Your task to perform on an android device: Open Android settings Image 0: 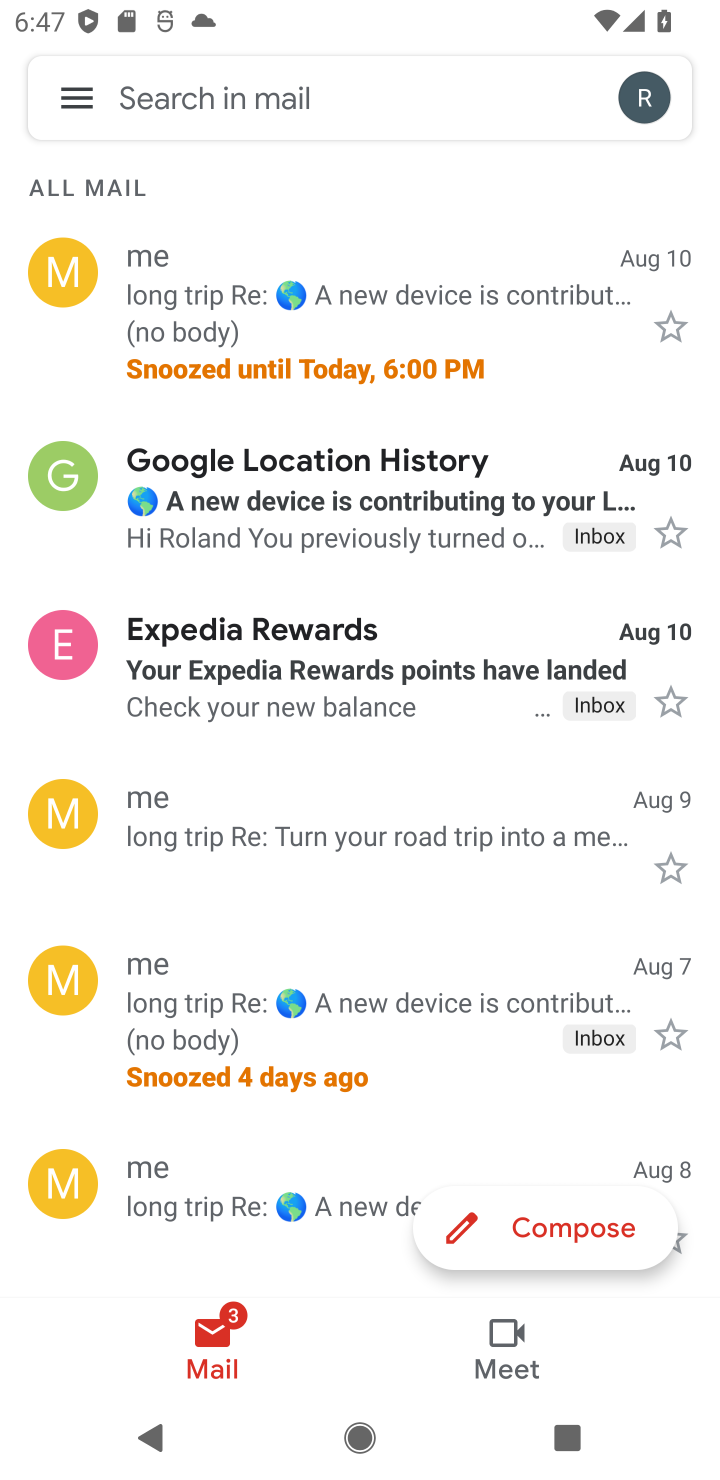
Step 0: press home button
Your task to perform on an android device: Open Android settings Image 1: 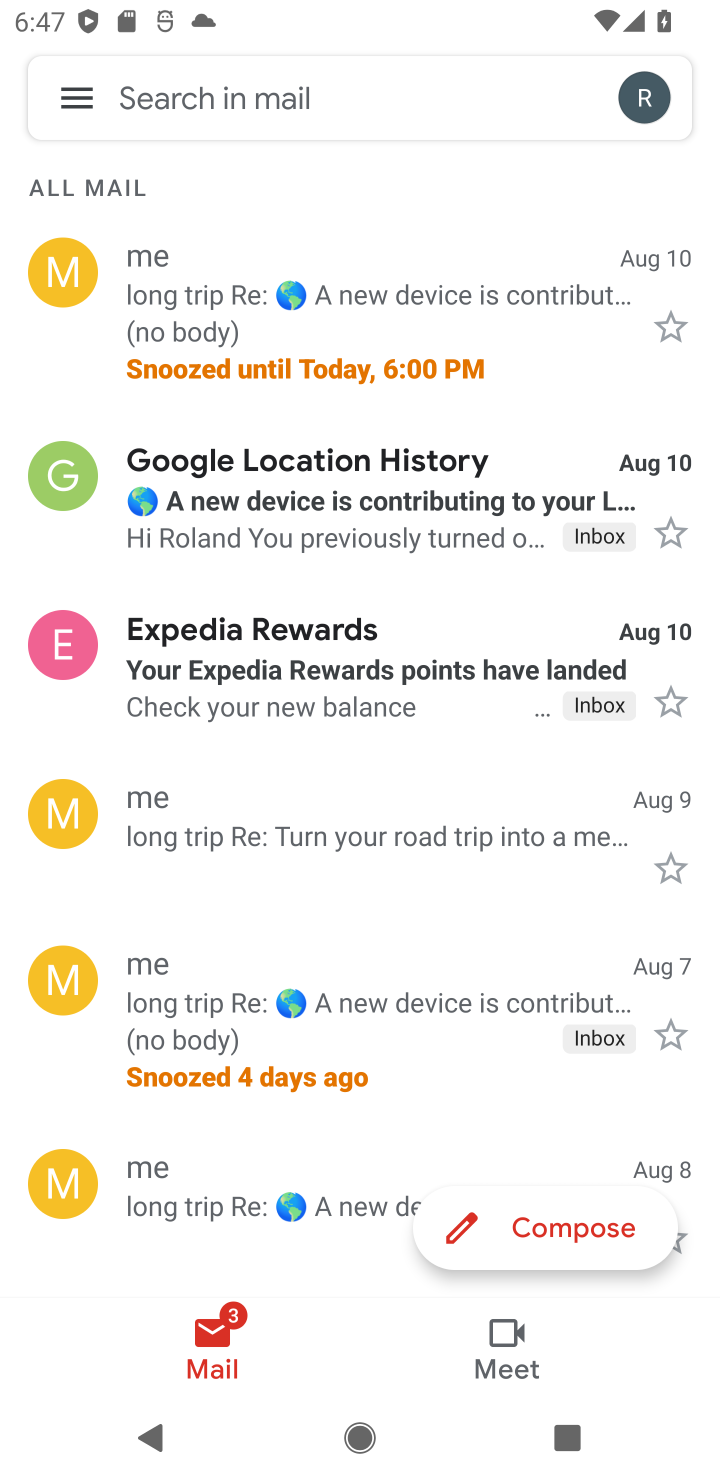
Step 1: press home button
Your task to perform on an android device: Open Android settings Image 2: 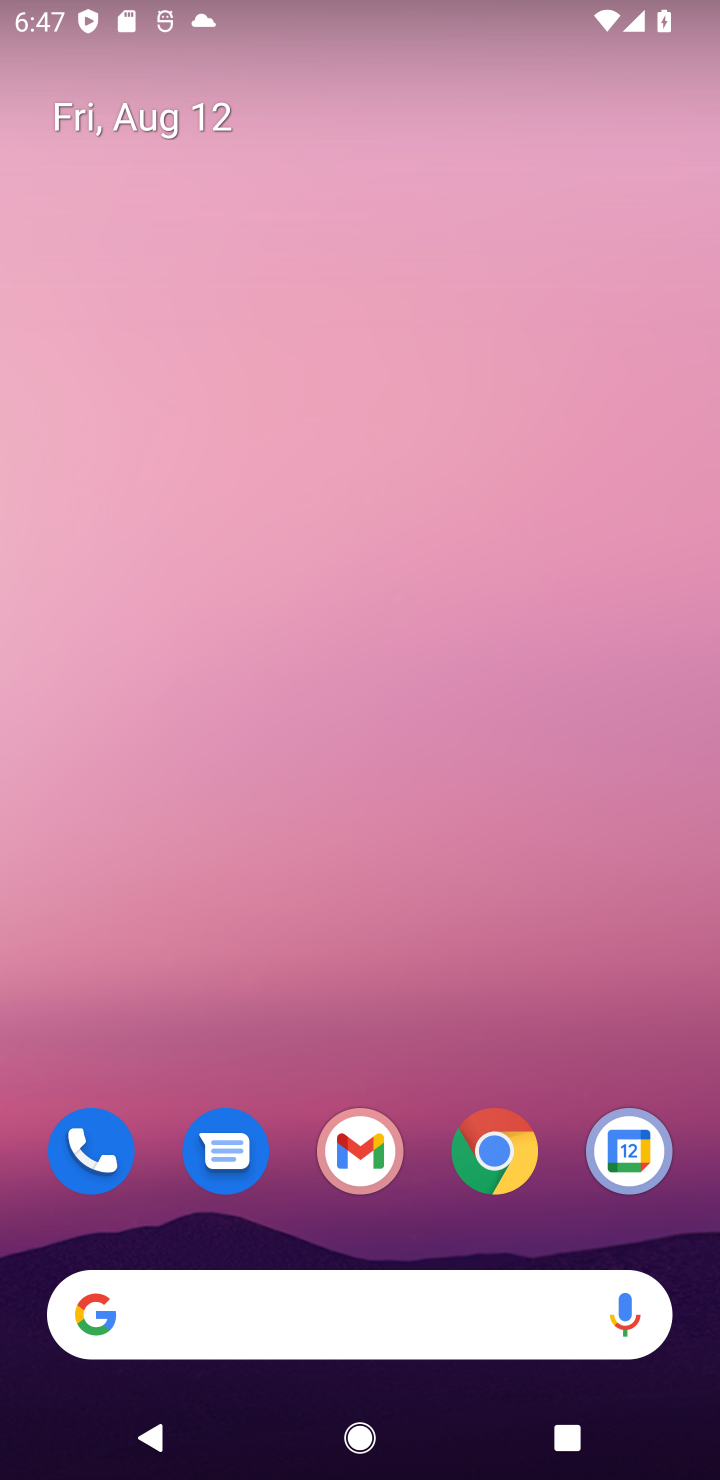
Step 2: drag from (471, 933) to (521, 0)
Your task to perform on an android device: Open Android settings Image 3: 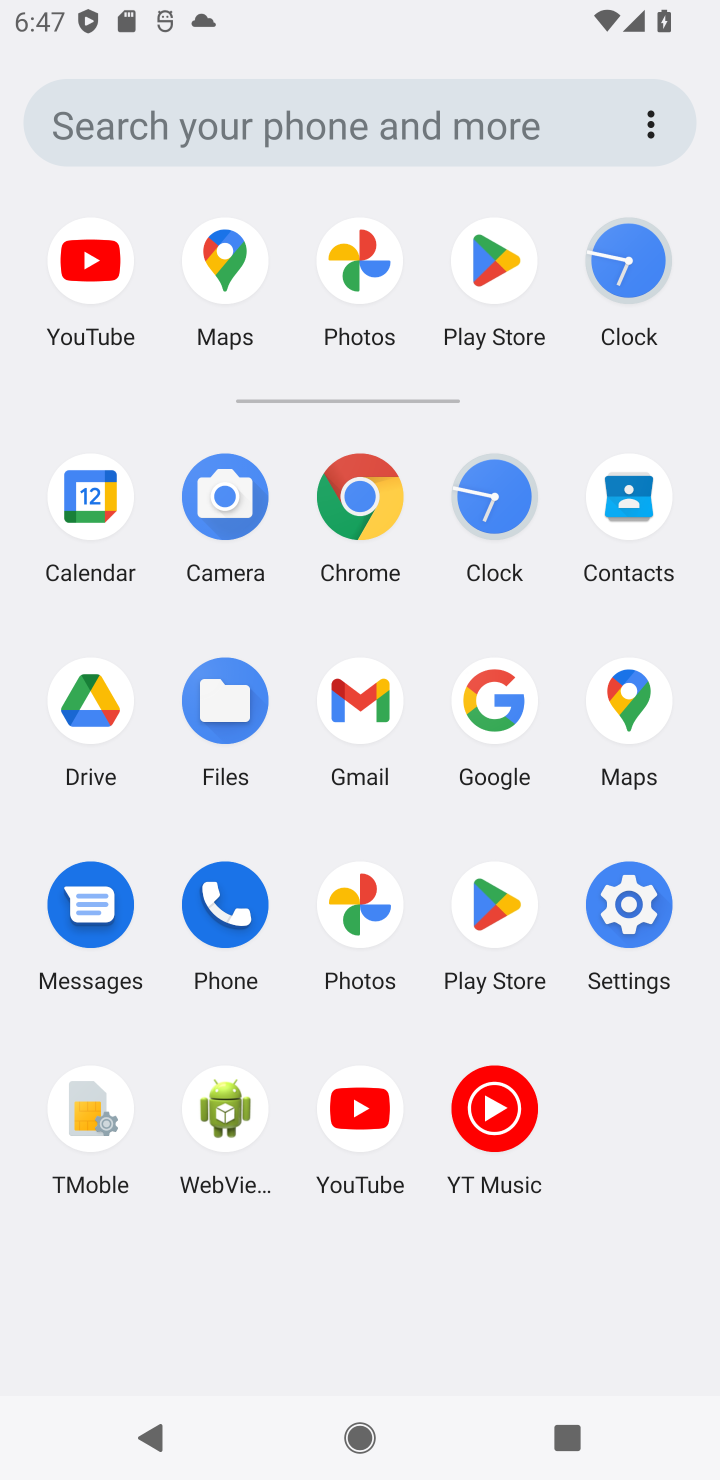
Step 3: click (644, 905)
Your task to perform on an android device: Open Android settings Image 4: 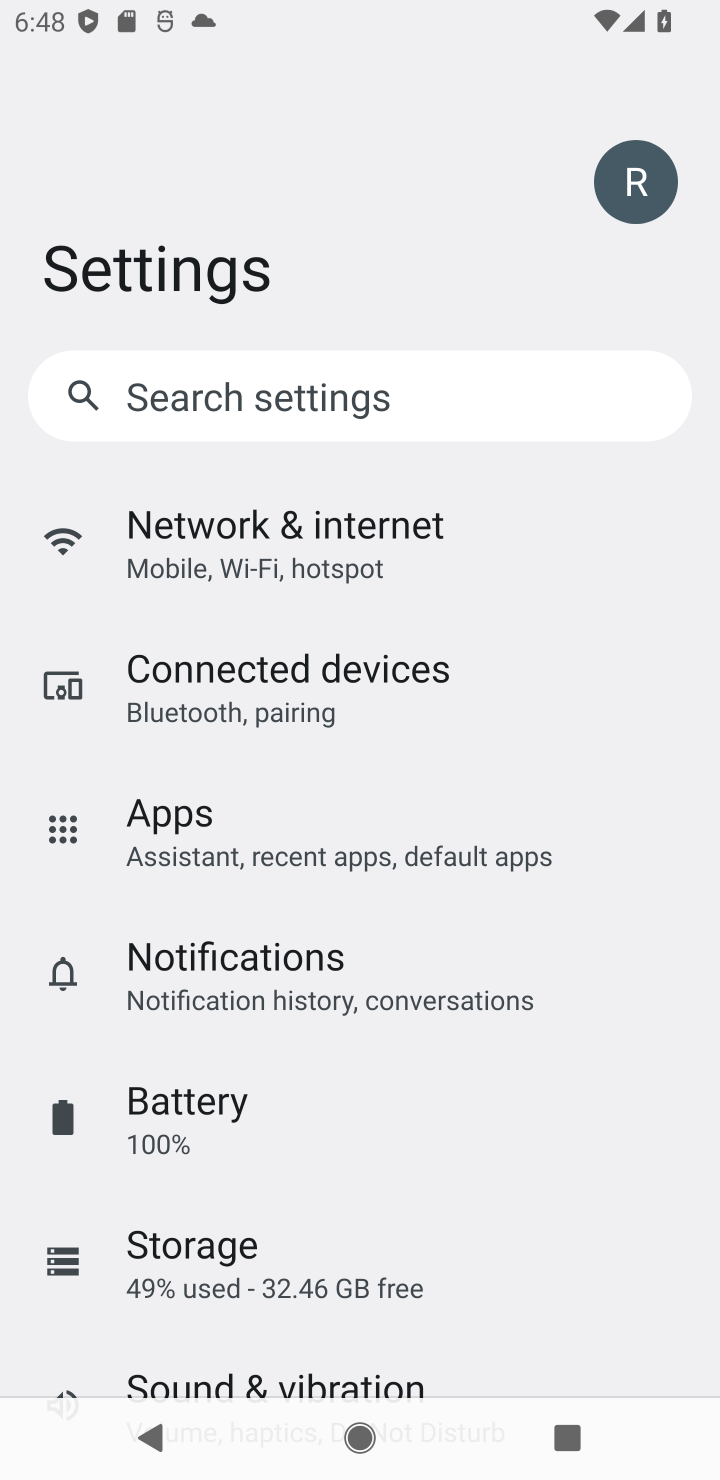
Step 4: task complete